Your task to perform on an android device: Show me popular games on the Play Store Image 0: 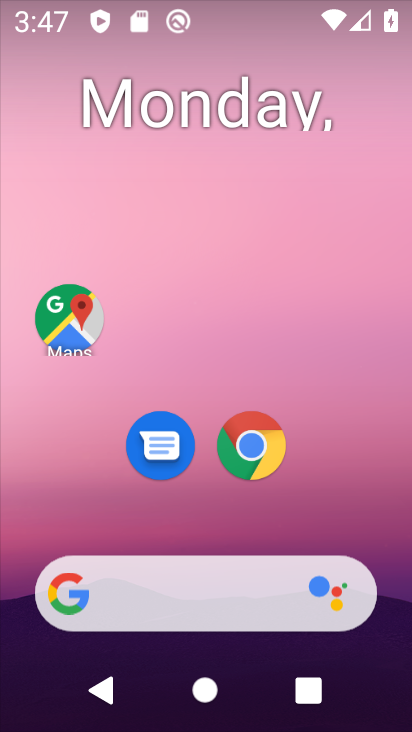
Step 0: drag from (246, 519) to (196, 12)
Your task to perform on an android device: Show me popular games on the Play Store Image 1: 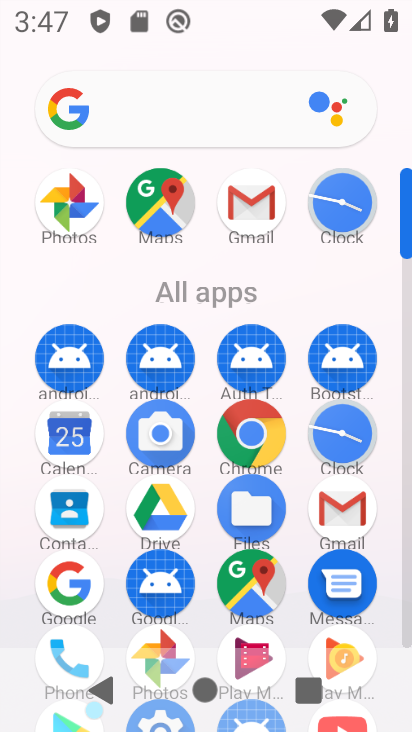
Step 1: drag from (115, 625) to (128, 318)
Your task to perform on an android device: Show me popular games on the Play Store Image 2: 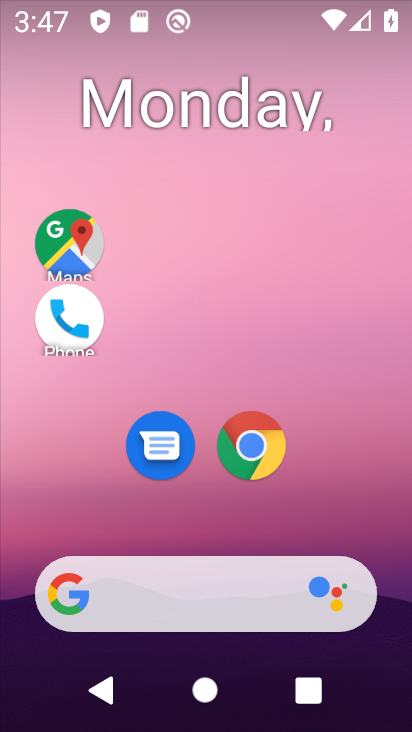
Step 2: drag from (321, 507) to (224, 71)
Your task to perform on an android device: Show me popular games on the Play Store Image 3: 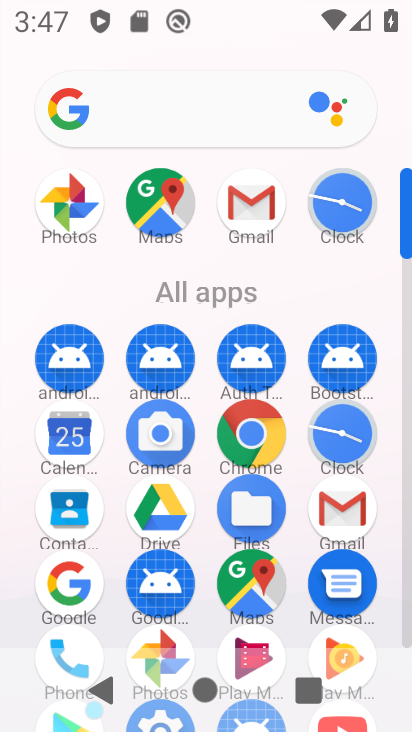
Step 3: drag from (208, 625) to (178, 324)
Your task to perform on an android device: Show me popular games on the Play Store Image 4: 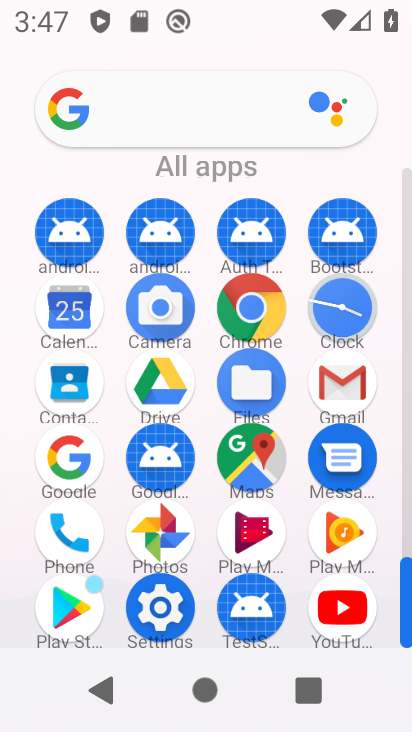
Step 4: click (76, 608)
Your task to perform on an android device: Show me popular games on the Play Store Image 5: 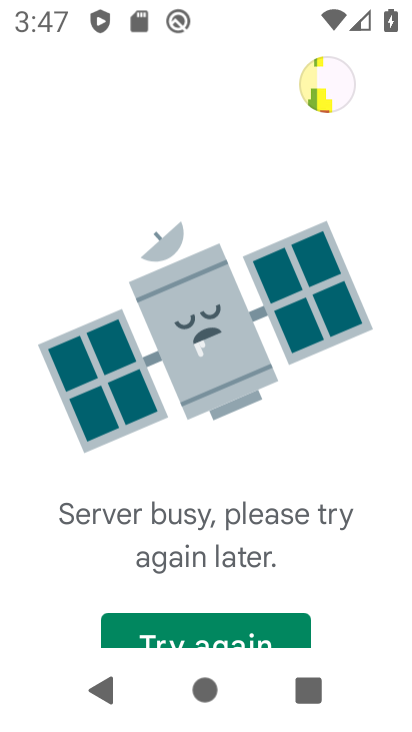
Step 5: task complete